Your task to perform on an android device: turn pop-ups off in chrome Image 0: 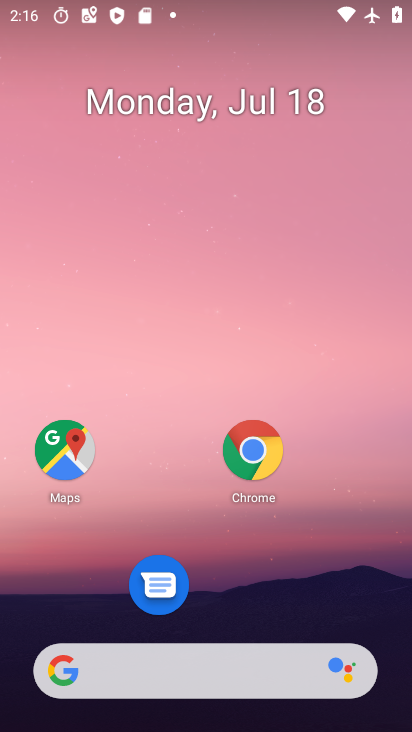
Step 0: press home button
Your task to perform on an android device: turn pop-ups off in chrome Image 1: 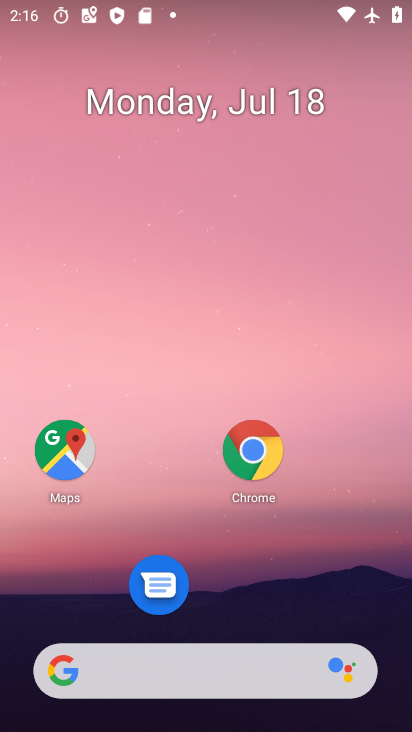
Step 1: click (333, 88)
Your task to perform on an android device: turn pop-ups off in chrome Image 2: 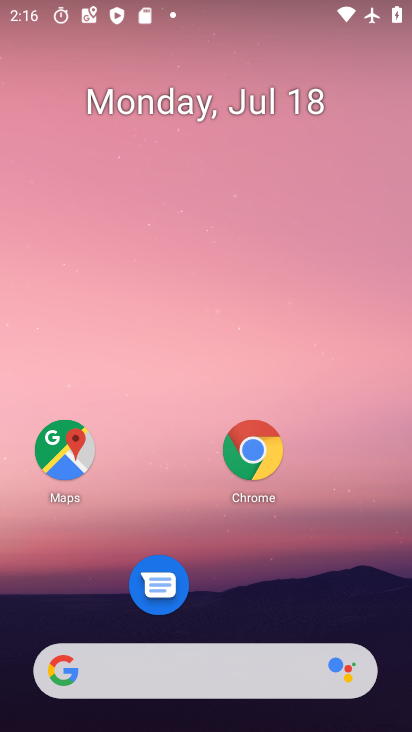
Step 2: press home button
Your task to perform on an android device: turn pop-ups off in chrome Image 3: 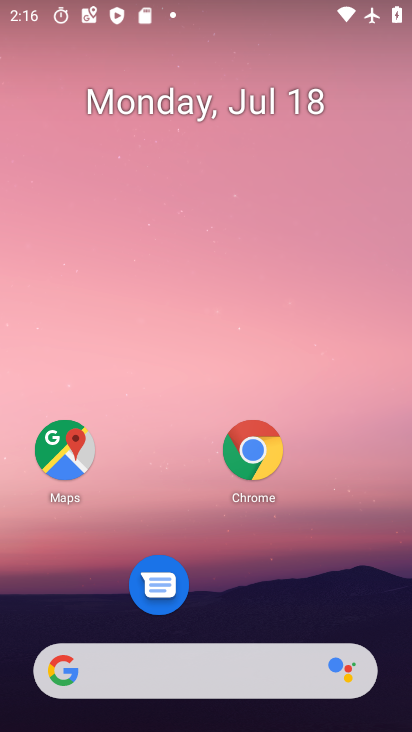
Step 3: click (255, 454)
Your task to perform on an android device: turn pop-ups off in chrome Image 4: 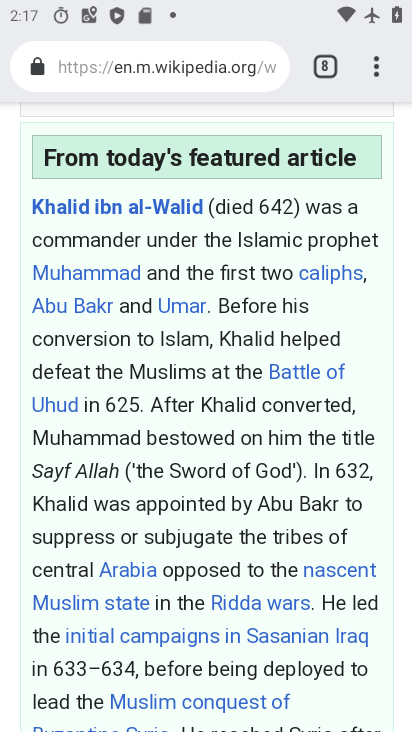
Step 4: drag from (372, 63) to (215, 576)
Your task to perform on an android device: turn pop-ups off in chrome Image 5: 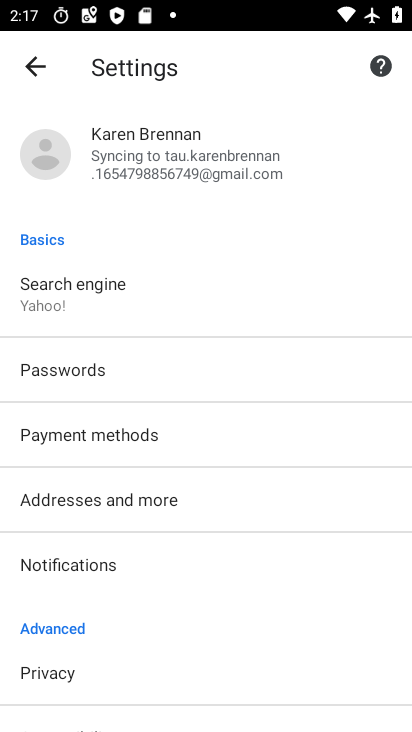
Step 5: drag from (180, 556) to (272, 182)
Your task to perform on an android device: turn pop-ups off in chrome Image 6: 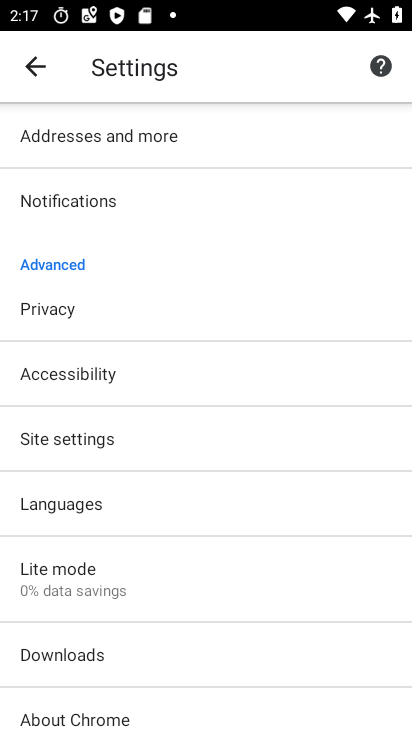
Step 6: click (99, 444)
Your task to perform on an android device: turn pop-ups off in chrome Image 7: 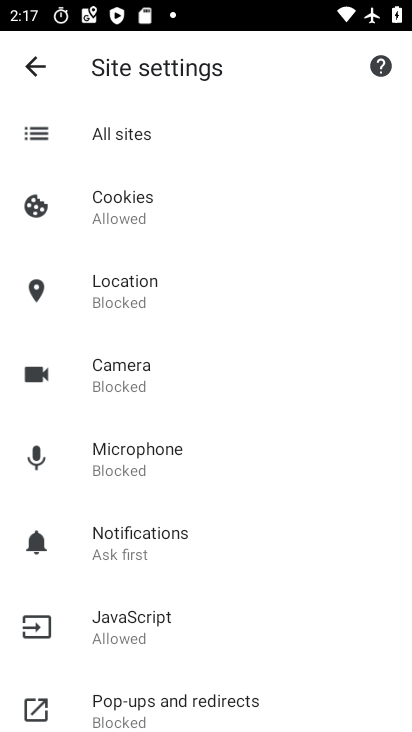
Step 7: drag from (185, 633) to (266, 323)
Your task to perform on an android device: turn pop-ups off in chrome Image 8: 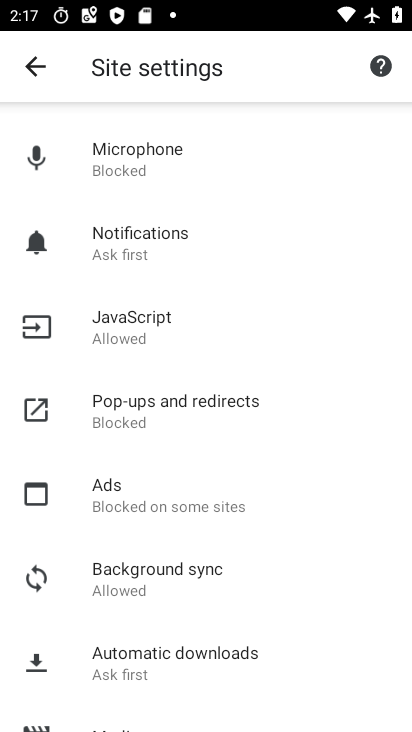
Step 8: click (161, 417)
Your task to perform on an android device: turn pop-ups off in chrome Image 9: 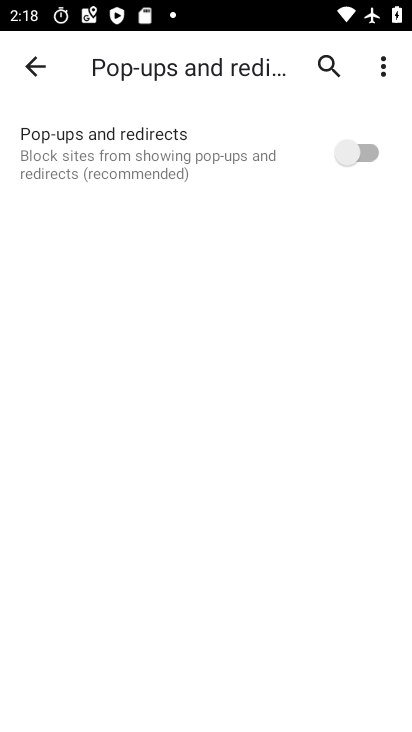
Step 9: task complete